Your task to perform on an android device: Show me recent news Image 0: 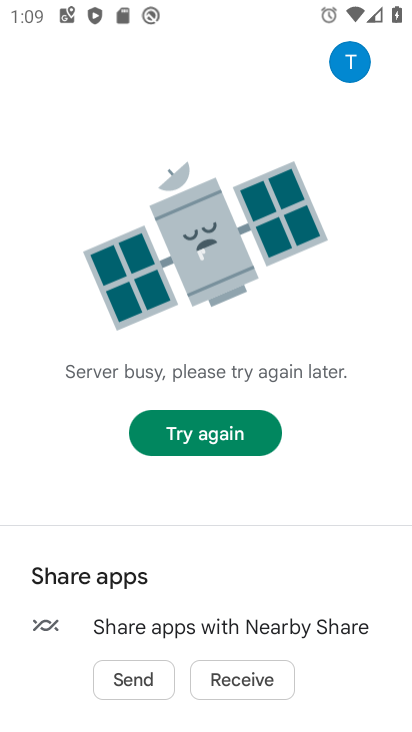
Step 0: press home button
Your task to perform on an android device: Show me recent news Image 1: 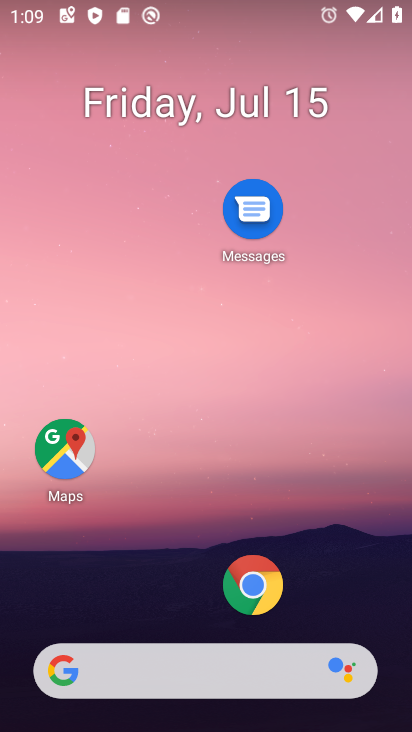
Step 1: click (171, 667)
Your task to perform on an android device: Show me recent news Image 2: 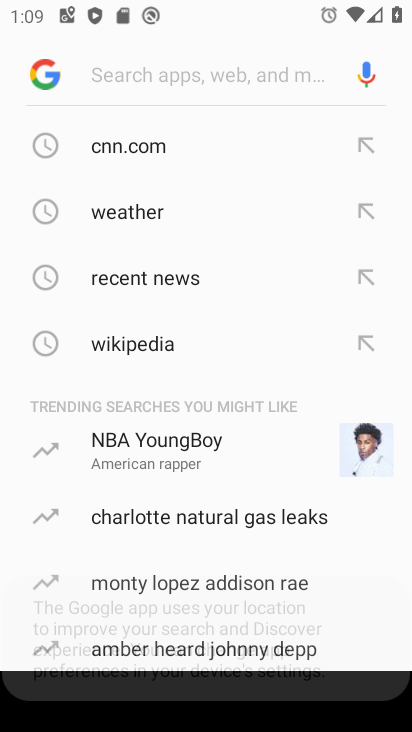
Step 2: click (151, 279)
Your task to perform on an android device: Show me recent news Image 3: 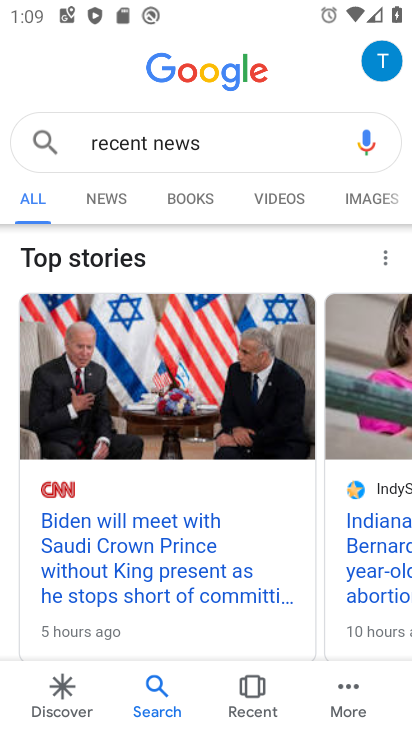
Step 3: click (109, 197)
Your task to perform on an android device: Show me recent news Image 4: 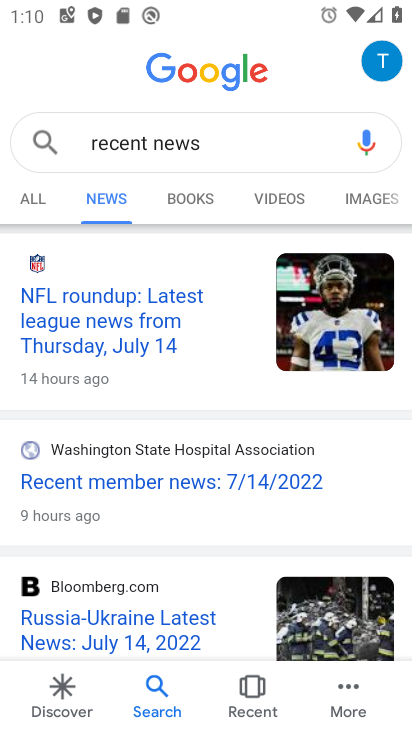
Step 4: task complete